Your task to perform on an android device: open app "DoorDash - Dasher" Image 0: 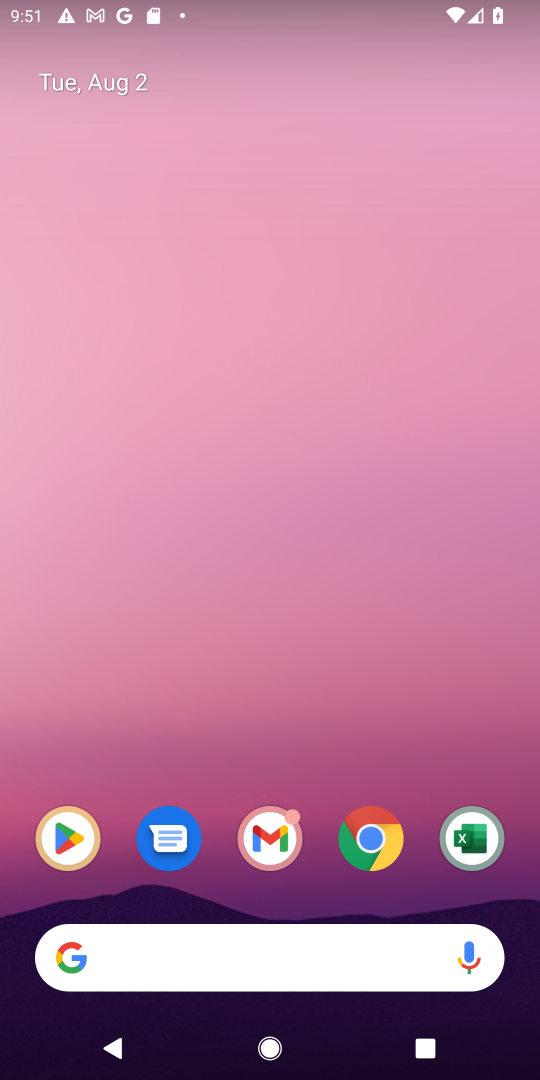
Step 0: drag from (350, 689) to (342, 67)
Your task to perform on an android device: open app "DoorDash - Dasher" Image 1: 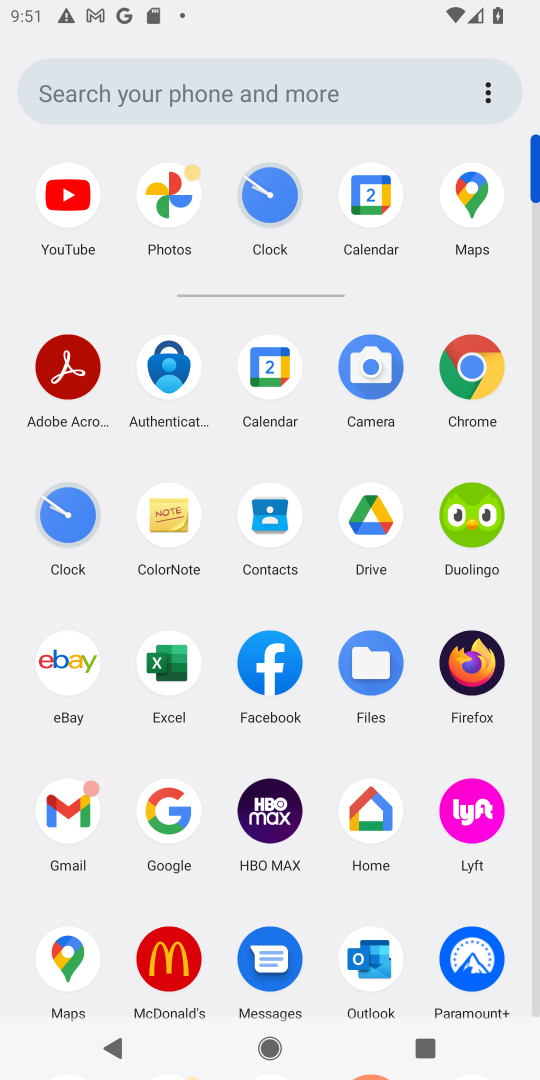
Step 1: drag from (414, 907) to (415, 491)
Your task to perform on an android device: open app "DoorDash - Dasher" Image 2: 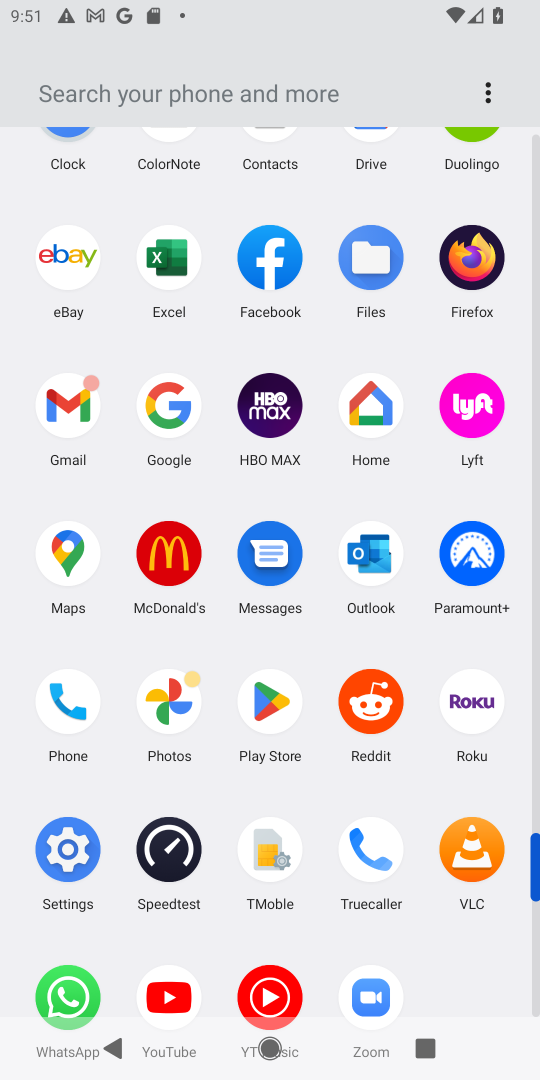
Step 2: click (260, 708)
Your task to perform on an android device: open app "DoorDash - Dasher" Image 3: 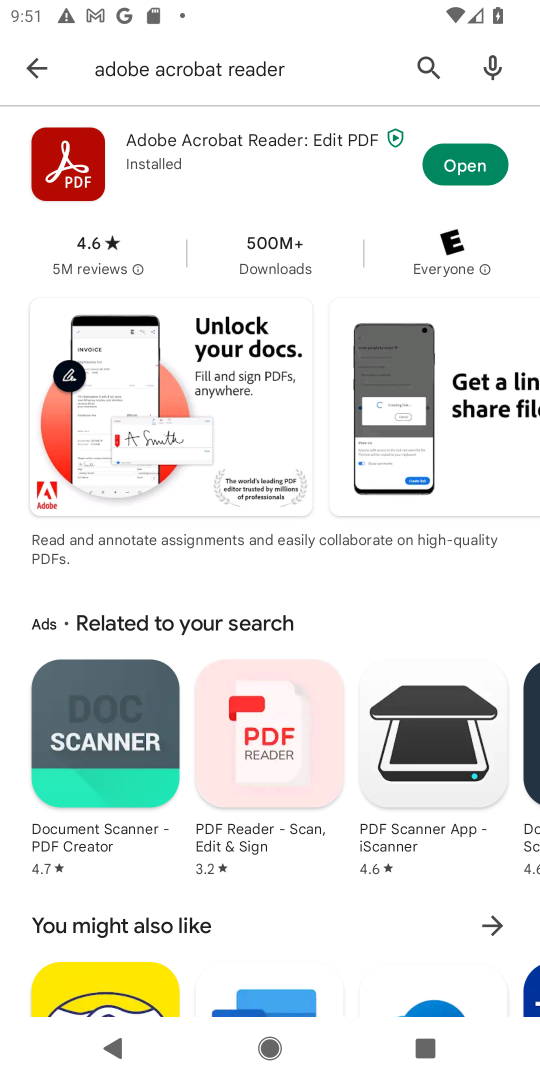
Step 3: click (428, 65)
Your task to perform on an android device: open app "DoorDash - Dasher" Image 4: 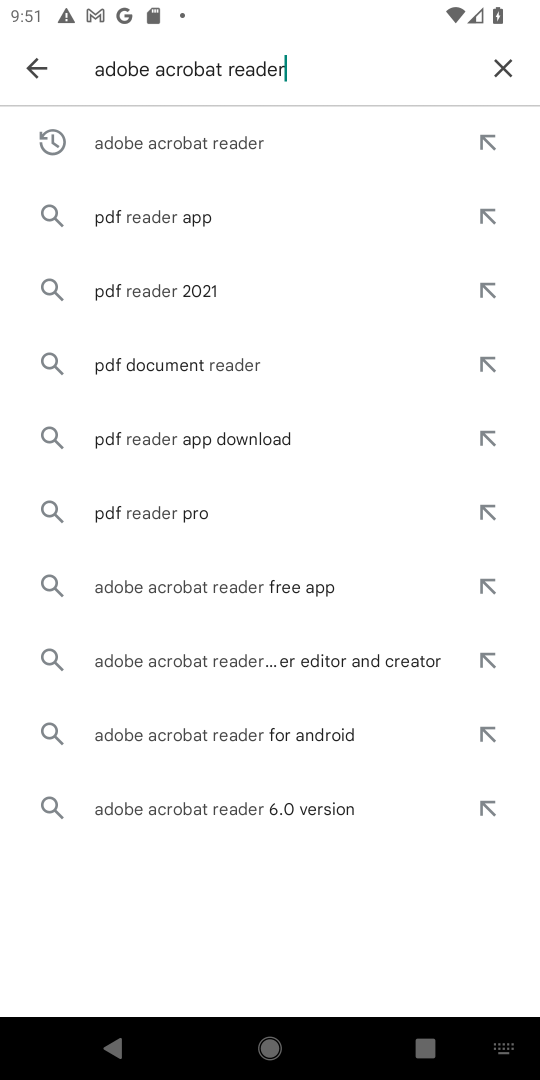
Step 4: click (511, 66)
Your task to perform on an android device: open app "DoorDash - Dasher" Image 5: 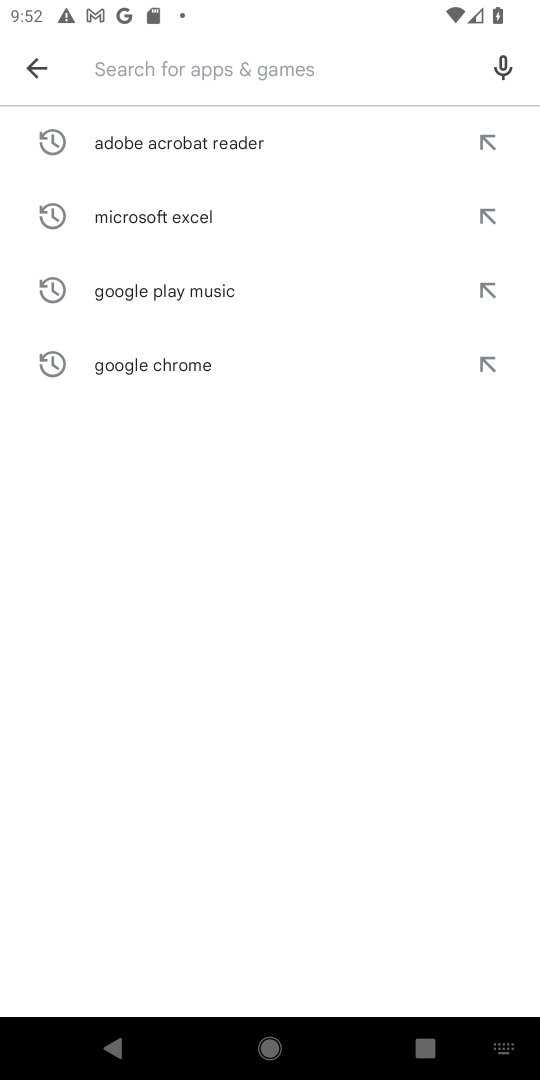
Step 5: type "door dash dasher"
Your task to perform on an android device: open app "DoorDash - Dasher" Image 6: 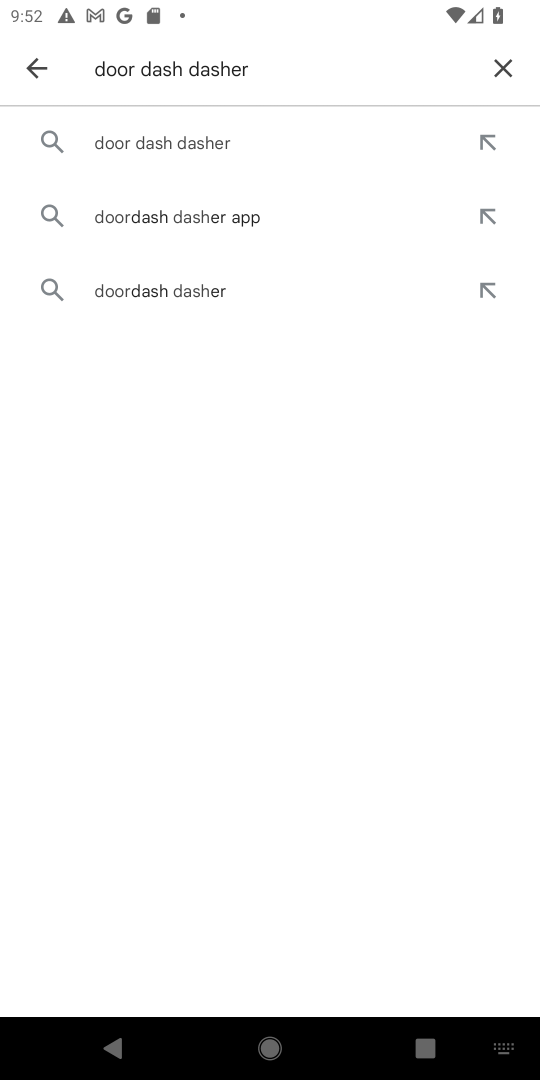
Step 6: click (246, 138)
Your task to perform on an android device: open app "DoorDash - Dasher" Image 7: 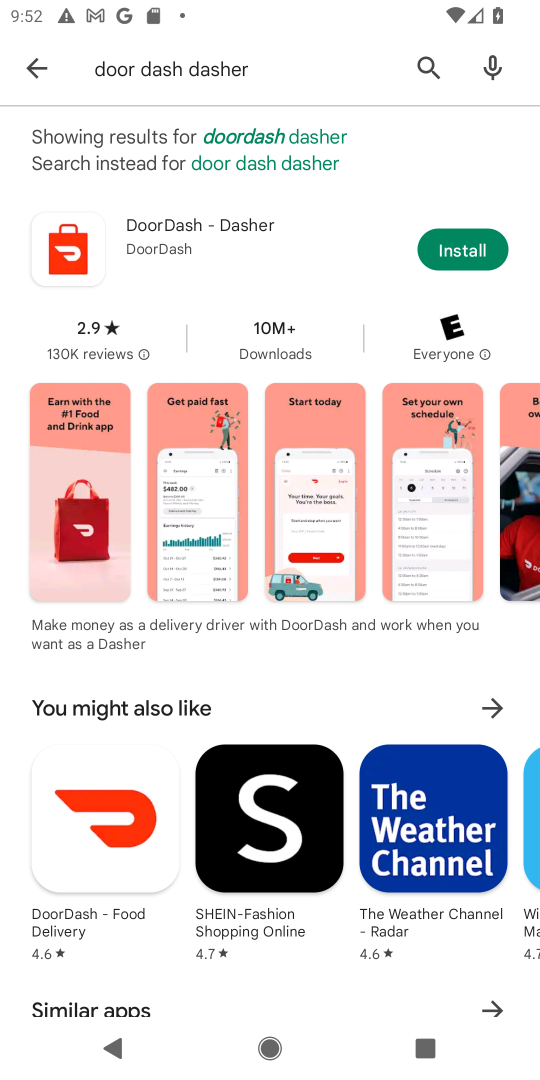
Step 7: task complete